Your task to perform on an android device: What's the weather? Image 0: 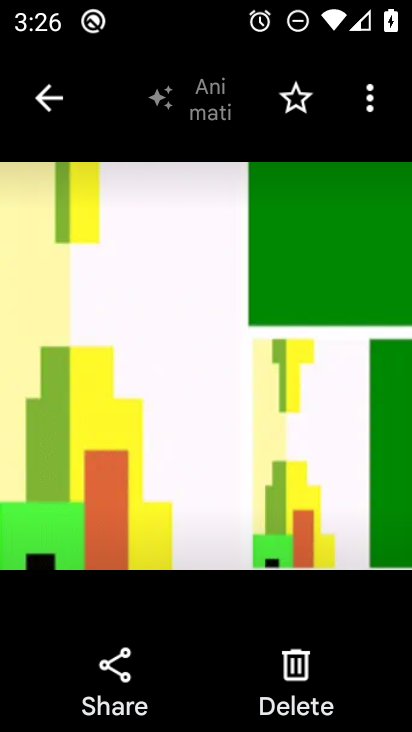
Step 0: press home button
Your task to perform on an android device: What's the weather? Image 1: 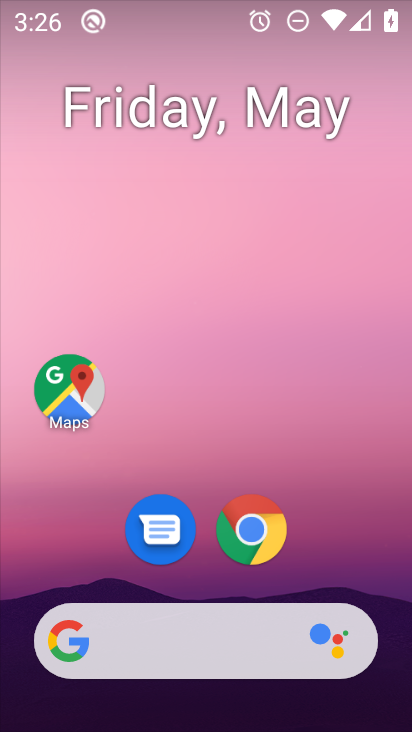
Step 1: drag from (394, 695) to (382, 323)
Your task to perform on an android device: What's the weather? Image 2: 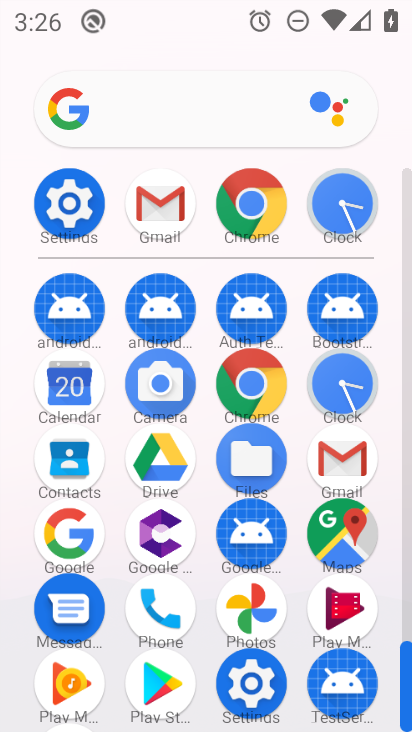
Step 2: click (65, 526)
Your task to perform on an android device: What's the weather? Image 3: 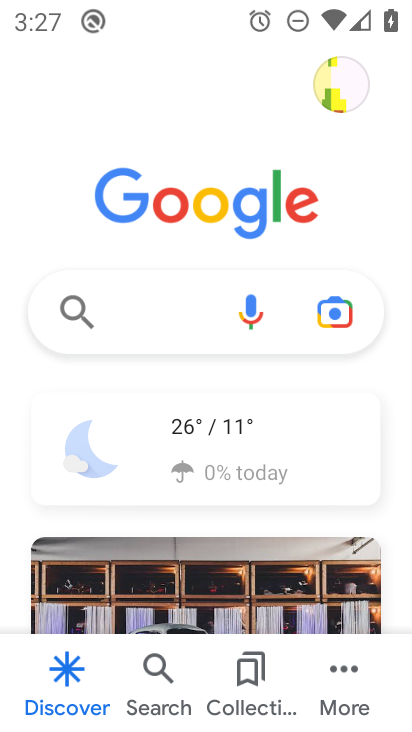
Step 3: click (202, 433)
Your task to perform on an android device: What's the weather? Image 4: 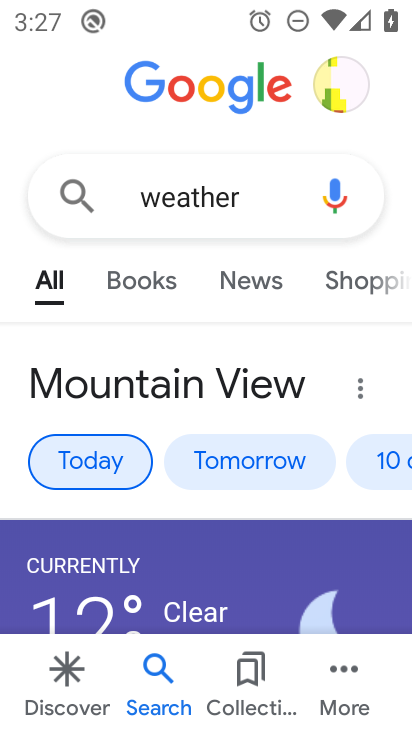
Step 4: click (85, 471)
Your task to perform on an android device: What's the weather? Image 5: 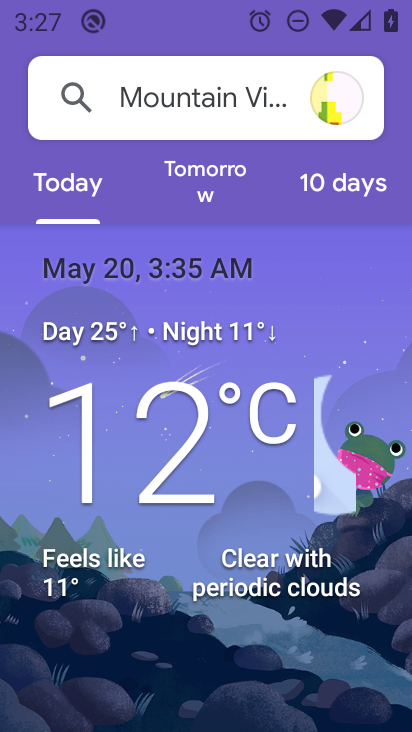
Step 5: task complete